Your task to perform on an android device: check out phone information Image 0: 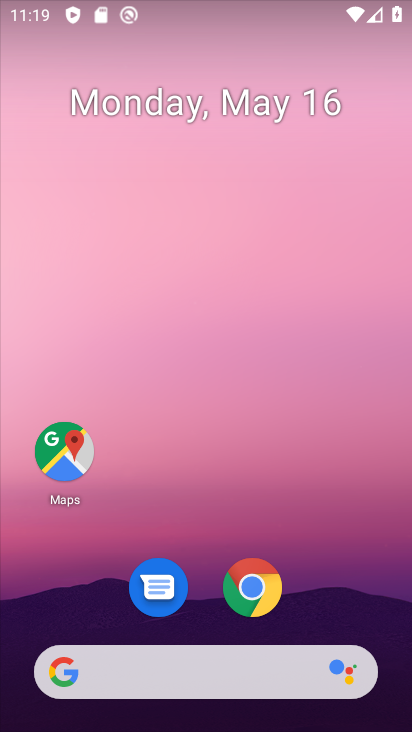
Step 0: click (309, 93)
Your task to perform on an android device: check out phone information Image 1: 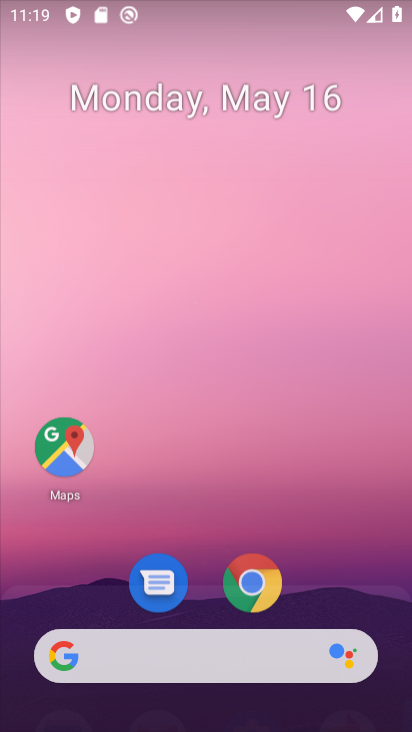
Step 1: click (298, 53)
Your task to perform on an android device: check out phone information Image 2: 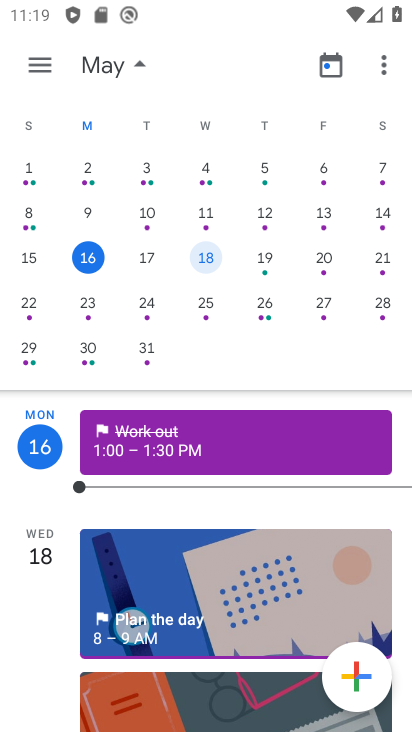
Step 2: press home button
Your task to perform on an android device: check out phone information Image 3: 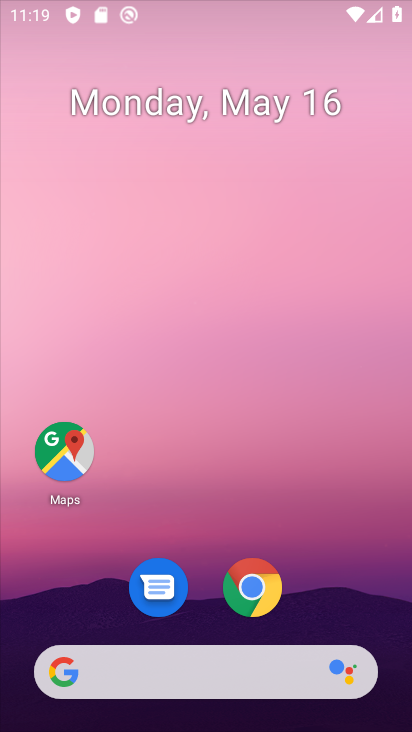
Step 3: drag from (381, 643) to (309, 19)
Your task to perform on an android device: check out phone information Image 4: 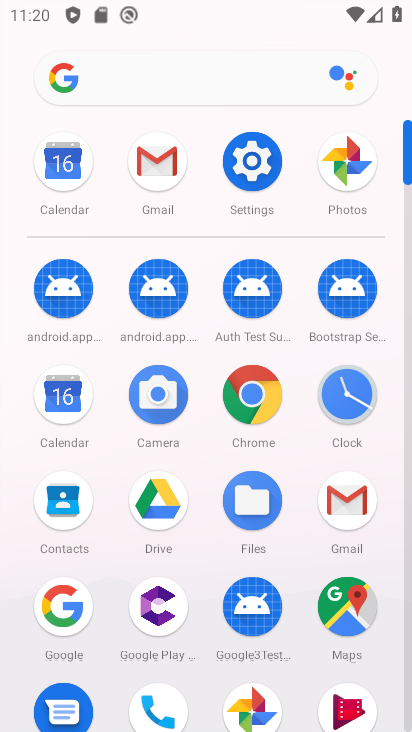
Step 4: click (250, 162)
Your task to perform on an android device: check out phone information Image 5: 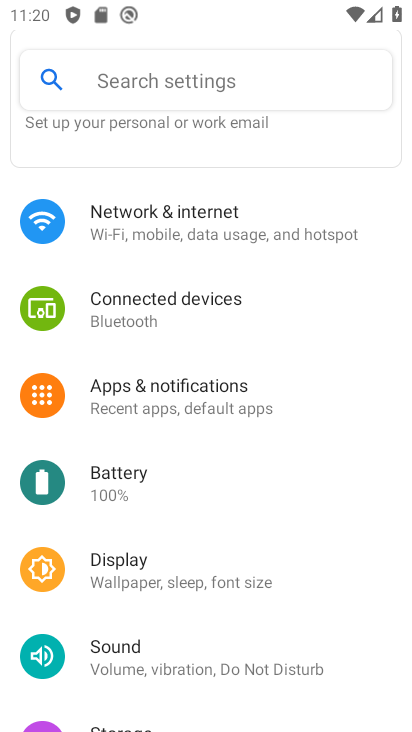
Step 5: drag from (181, 625) to (204, 26)
Your task to perform on an android device: check out phone information Image 6: 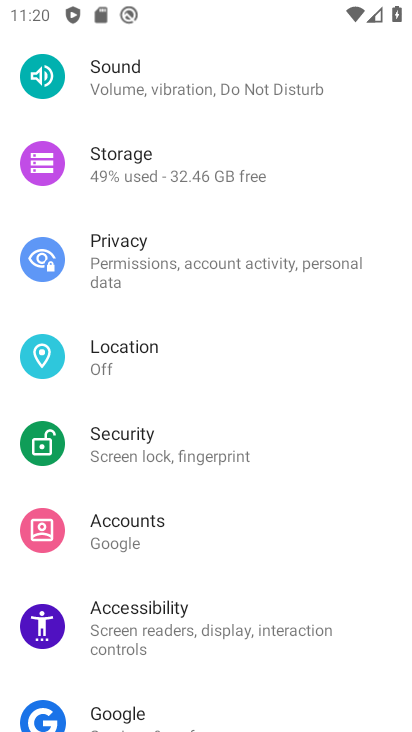
Step 6: drag from (200, 590) to (266, 38)
Your task to perform on an android device: check out phone information Image 7: 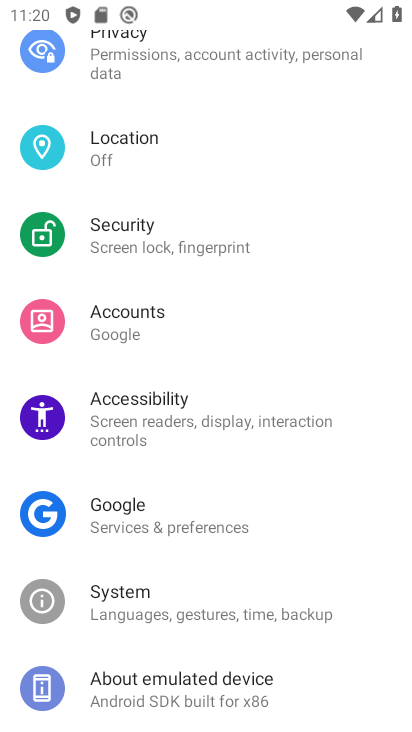
Step 7: click (235, 676)
Your task to perform on an android device: check out phone information Image 8: 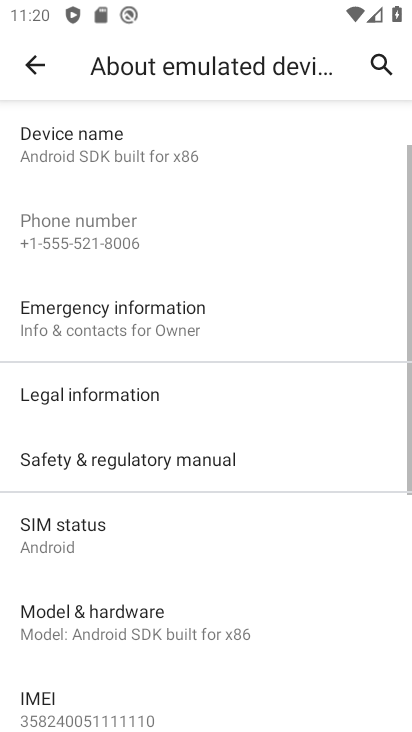
Step 8: task complete